Your task to perform on an android device: Add logitech g933 to the cart on amazon, then select checkout. Image 0: 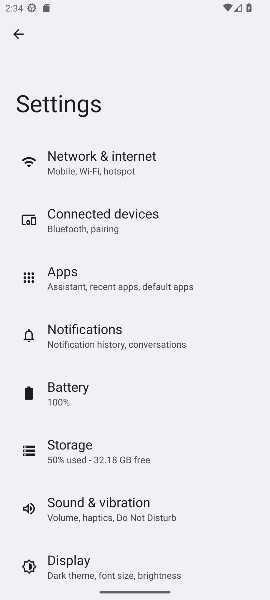
Step 0: press home button
Your task to perform on an android device: Add logitech g933 to the cart on amazon, then select checkout. Image 1: 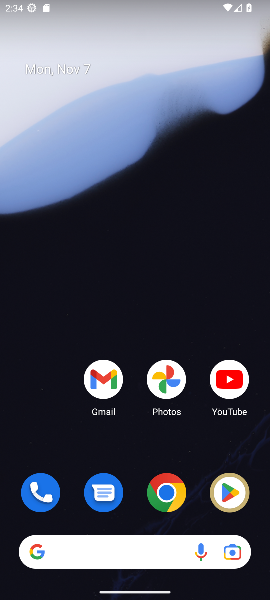
Step 1: click (173, 490)
Your task to perform on an android device: Add logitech g933 to the cart on amazon, then select checkout. Image 2: 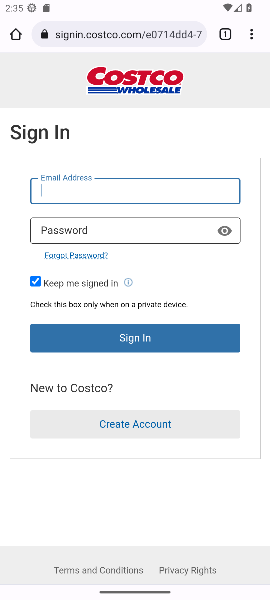
Step 2: click (134, 30)
Your task to perform on an android device: Add logitech g933 to the cart on amazon, then select checkout. Image 3: 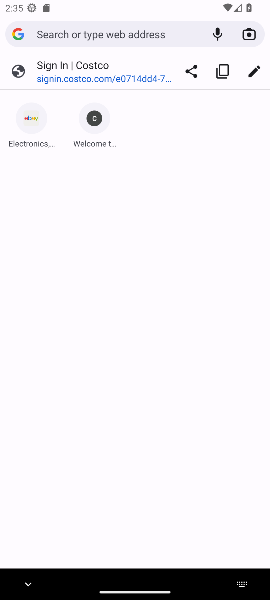
Step 3: type "amazon"
Your task to perform on an android device: Add logitech g933 to the cart on amazon, then select checkout. Image 4: 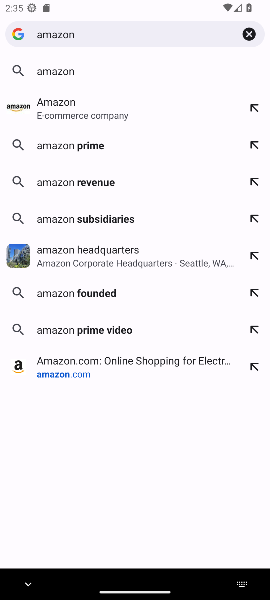
Step 4: click (54, 70)
Your task to perform on an android device: Add logitech g933 to the cart on amazon, then select checkout. Image 5: 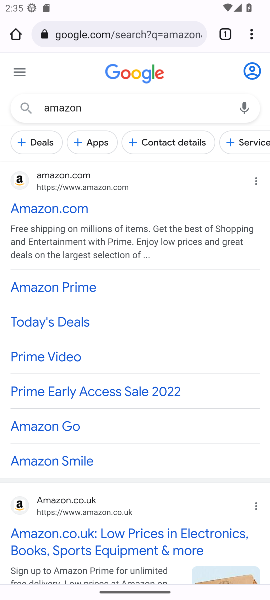
Step 5: click (58, 207)
Your task to perform on an android device: Add logitech g933 to the cart on amazon, then select checkout. Image 6: 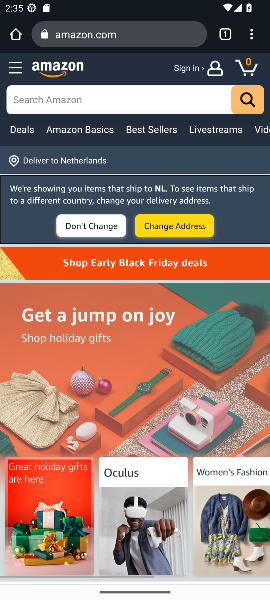
Step 6: click (121, 101)
Your task to perform on an android device: Add logitech g933 to the cart on amazon, then select checkout. Image 7: 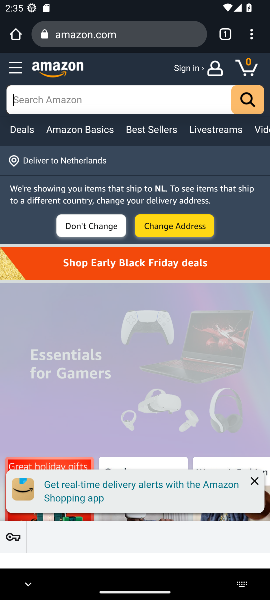
Step 7: type "logitech g933"
Your task to perform on an android device: Add logitech g933 to the cart on amazon, then select checkout. Image 8: 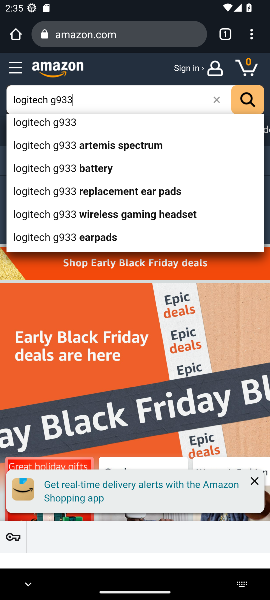
Step 8: click (29, 123)
Your task to perform on an android device: Add logitech g933 to the cart on amazon, then select checkout. Image 9: 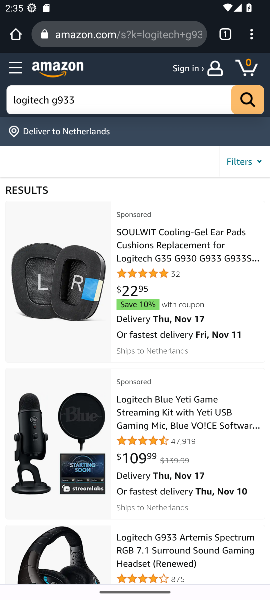
Step 9: click (67, 543)
Your task to perform on an android device: Add logitech g933 to the cart on amazon, then select checkout. Image 10: 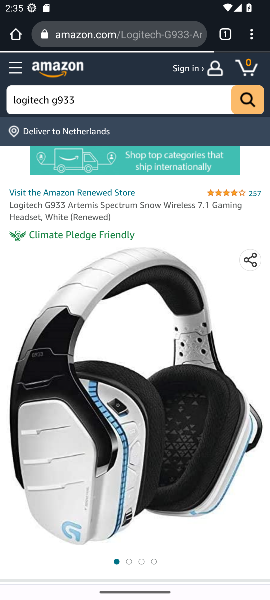
Step 10: drag from (215, 543) to (159, 179)
Your task to perform on an android device: Add logitech g933 to the cart on amazon, then select checkout. Image 11: 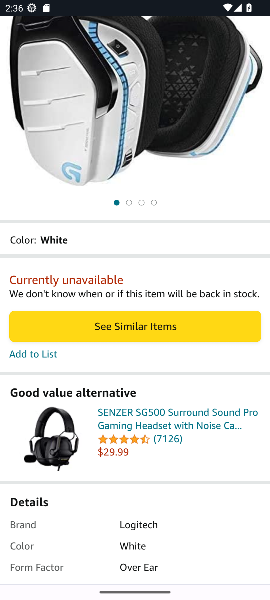
Step 11: press back button
Your task to perform on an android device: Add logitech g933 to the cart on amazon, then select checkout. Image 12: 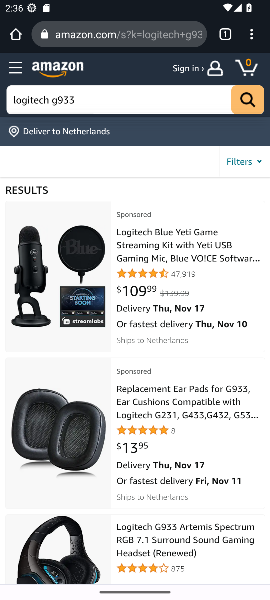
Step 12: drag from (171, 358) to (144, 190)
Your task to perform on an android device: Add logitech g933 to the cart on amazon, then select checkout. Image 13: 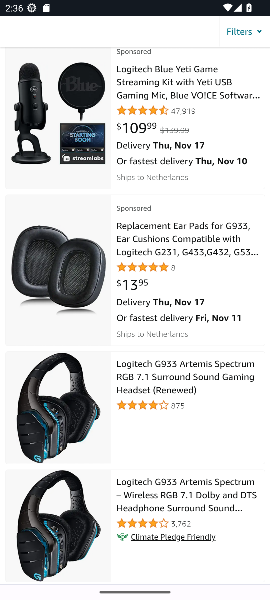
Step 13: click (64, 523)
Your task to perform on an android device: Add logitech g933 to the cart on amazon, then select checkout. Image 14: 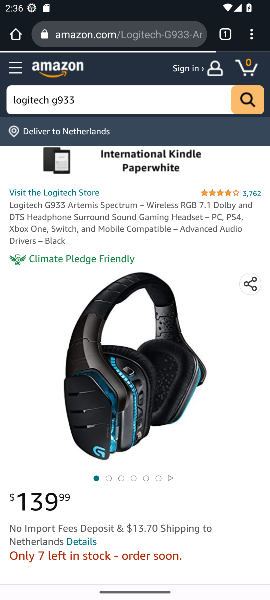
Step 14: drag from (185, 501) to (152, 301)
Your task to perform on an android device: Add logitech g933 to the cart on amazon, then select checkout. Image 15: 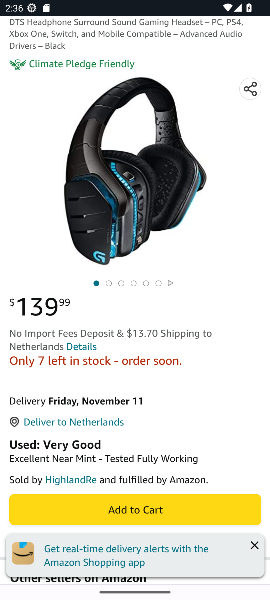
Step 15: click (128, 510)
Your task to perform on an android device: Add logitech g933 to the cart on amazon, then select checkout. Image 16: 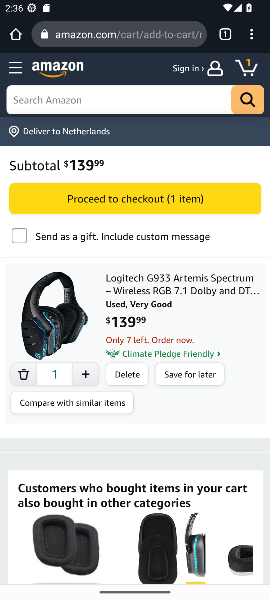
Step 16: task complete